Your task to perform on an android device: Do I have any events this weekend? Image 0: 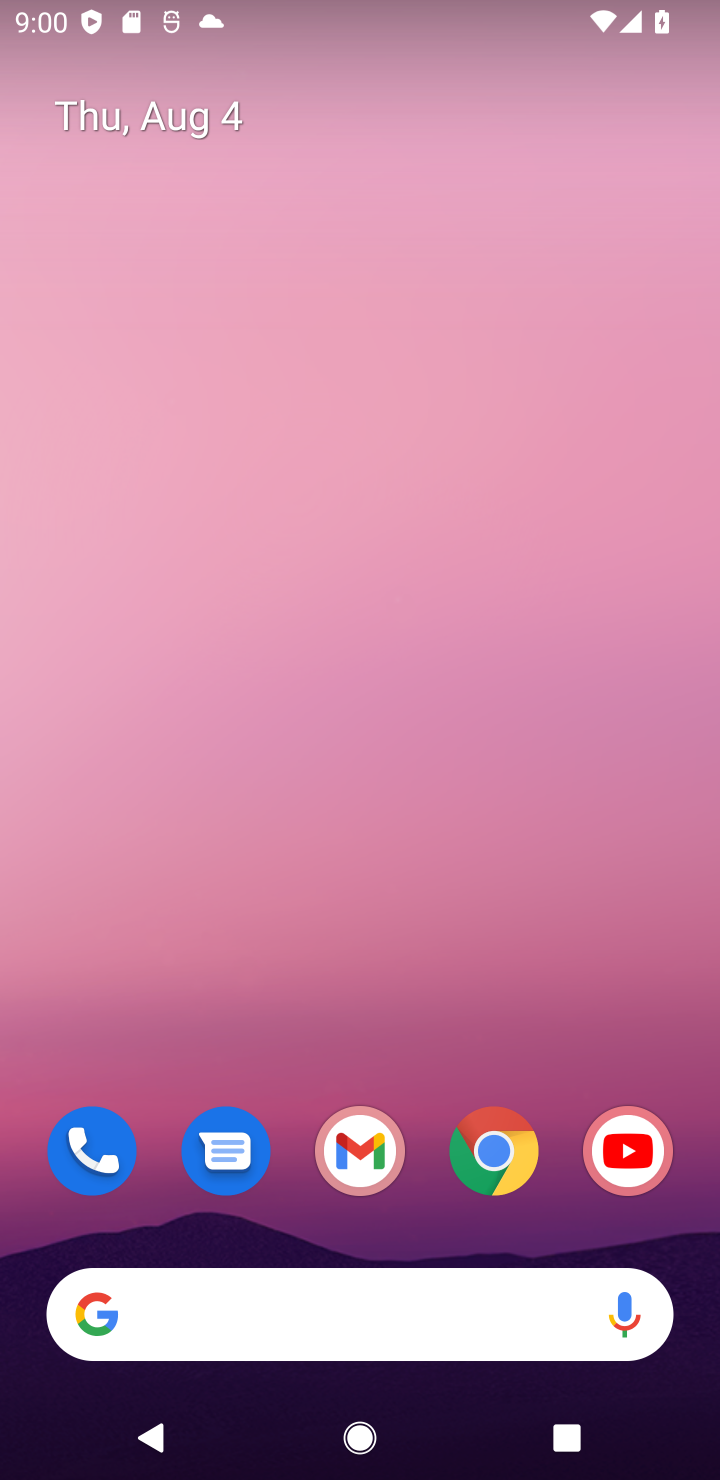
Step 0: drag from (530, 1037) to (437, 360)
Your task to perform on an android device: Do I have any events this weekend? Image 1: 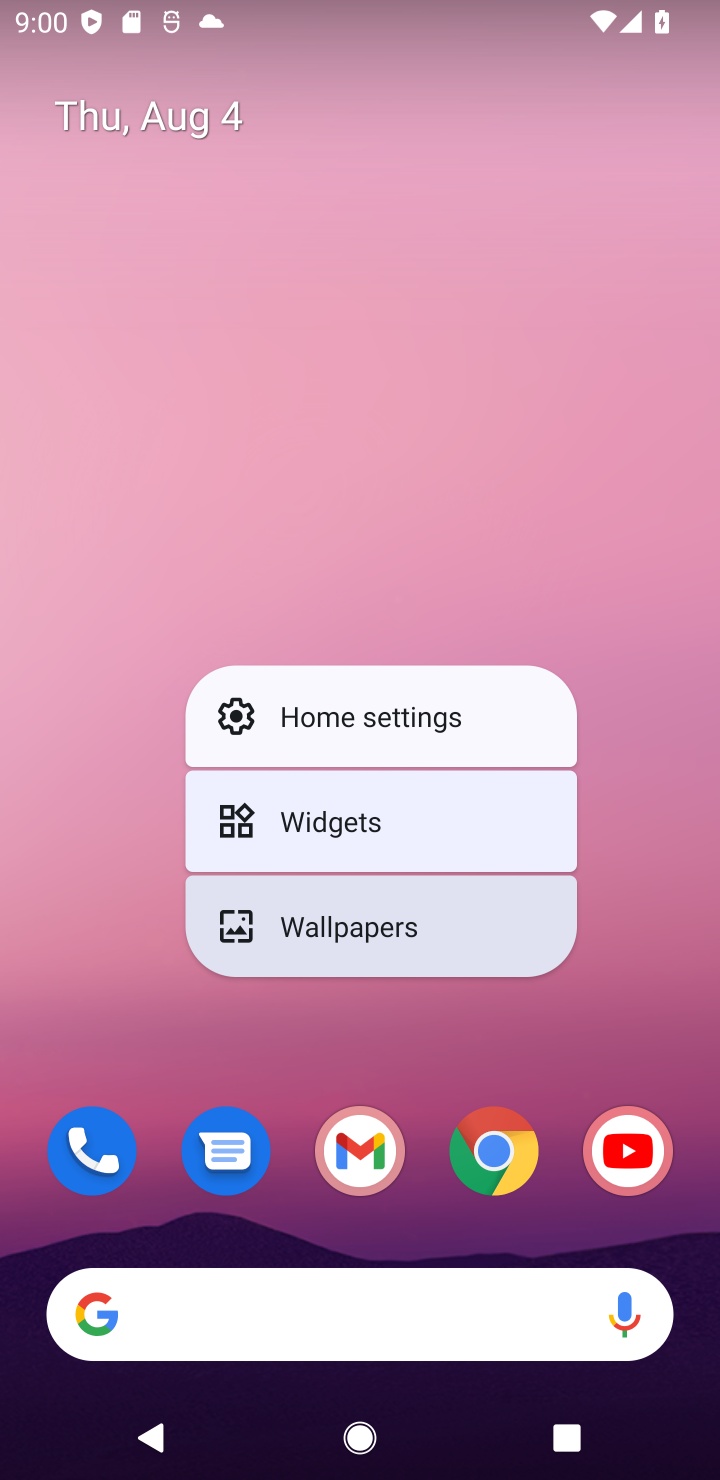
Step 1: click (650, 997)
Your task to perform on an android device: Do I have any events this weekend? Image 2: 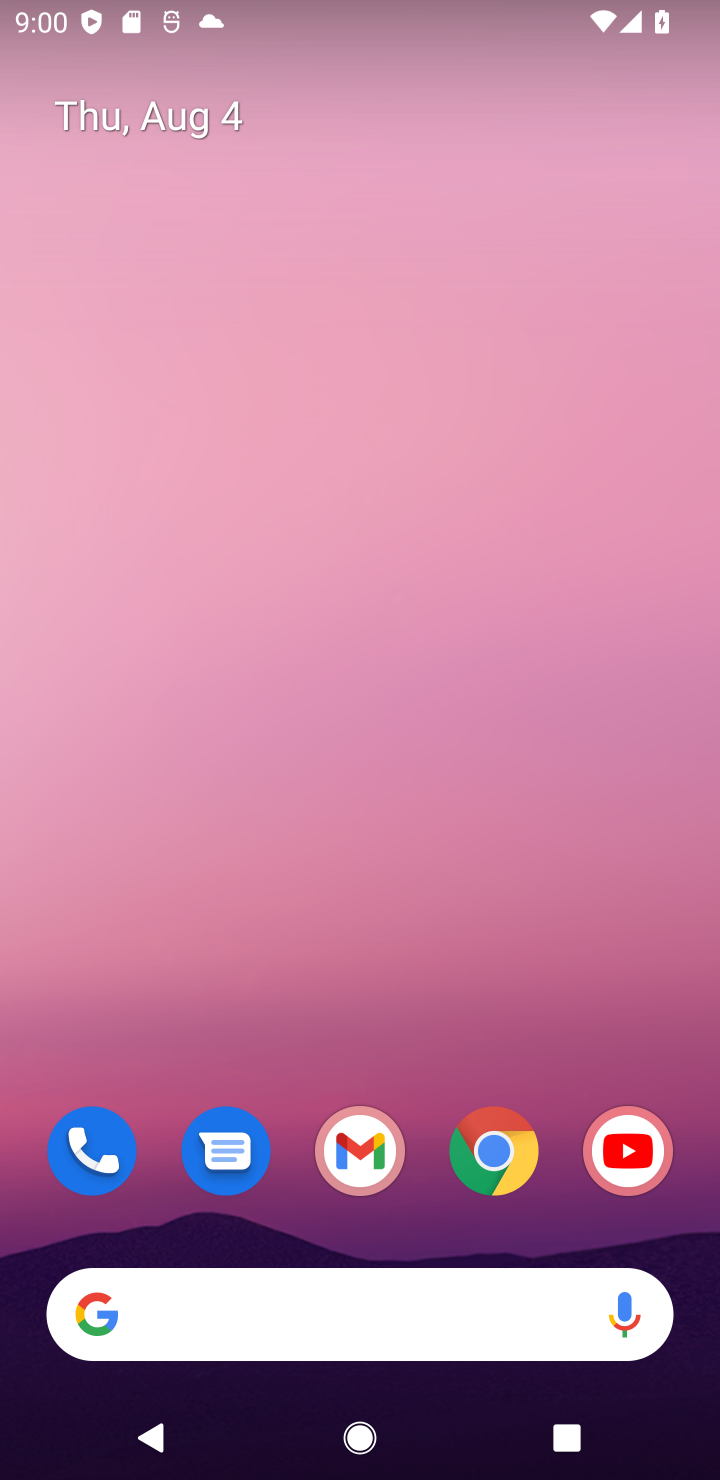
Step 2: drag from (489, 1044) to (230, 211)
Your task to perform on an android device: Do I have any events this weekend? Image 3: 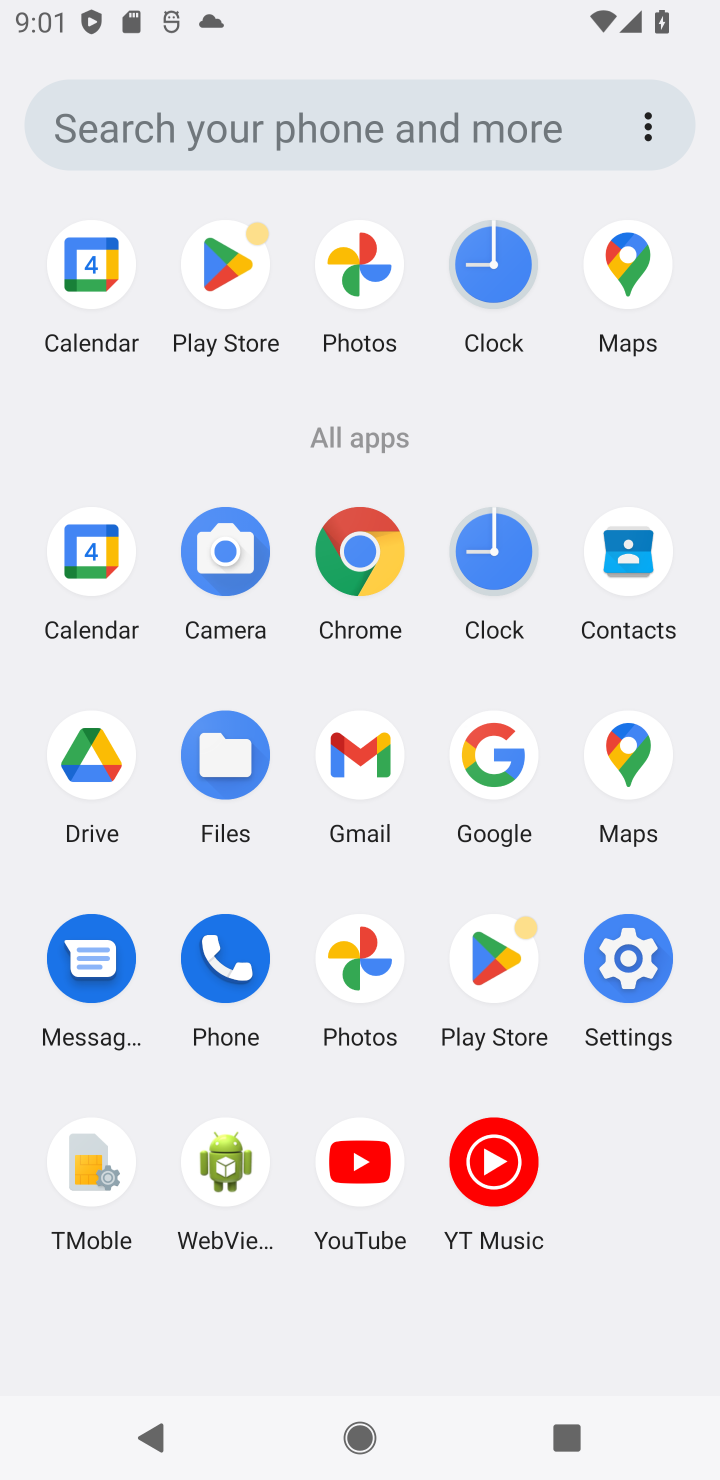
Step 3: click (83, 292)
Your task to perform on an android device: Do I have any events this weekend? Image 4: 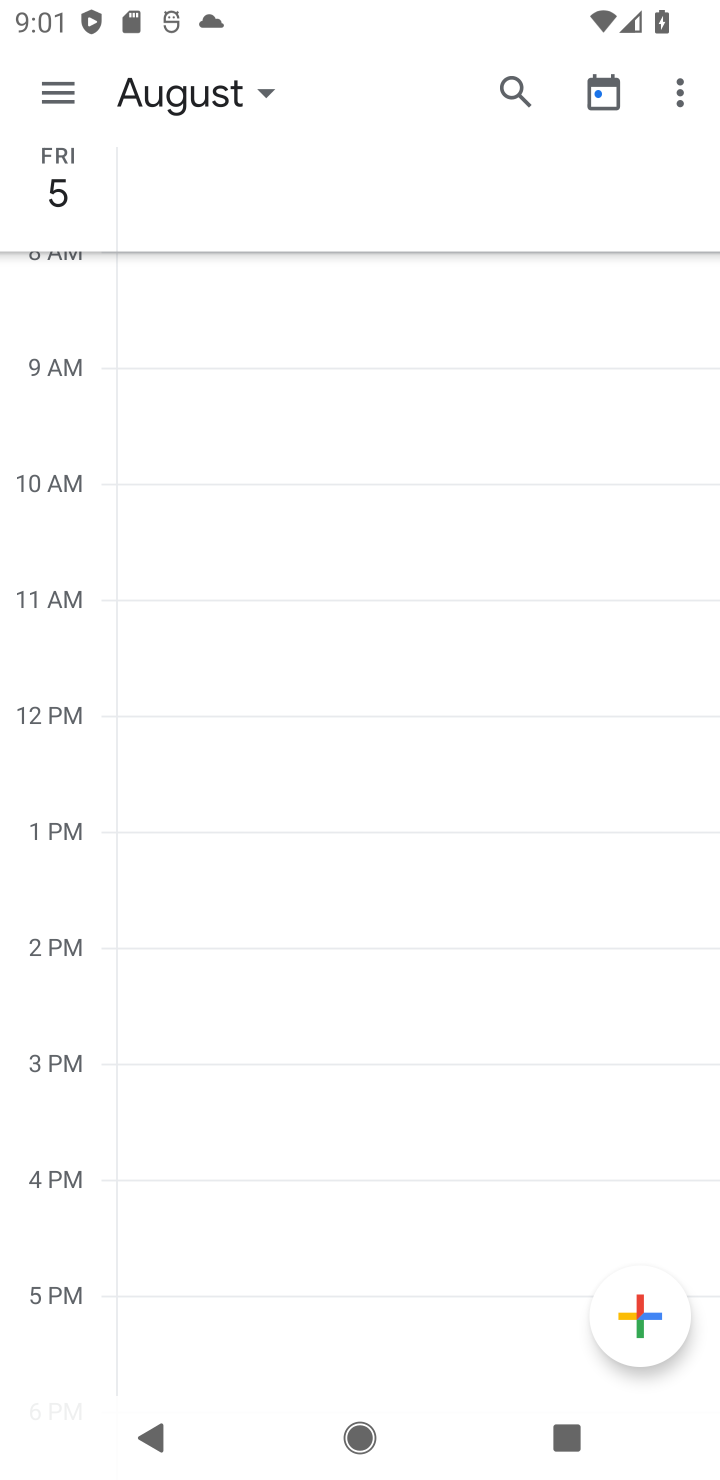
Step 4: task complete